Your task to perform on an android device: Play the last video I watched on Youtube Image 0: 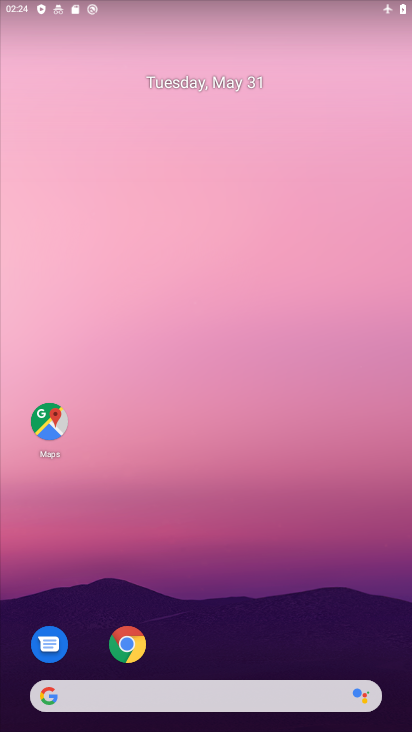
Step 0: drag from (273, 586) to (268, 158)
Your task to perform on an android device: Play the last video I watched on Youtube Image 1: 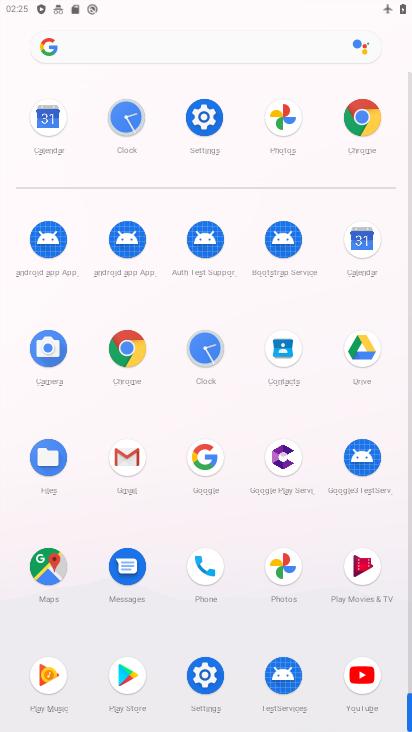
Step 1: click (368, 675)
Your task to perform on an android device: Play the last video I watched on Youtube Image 2: 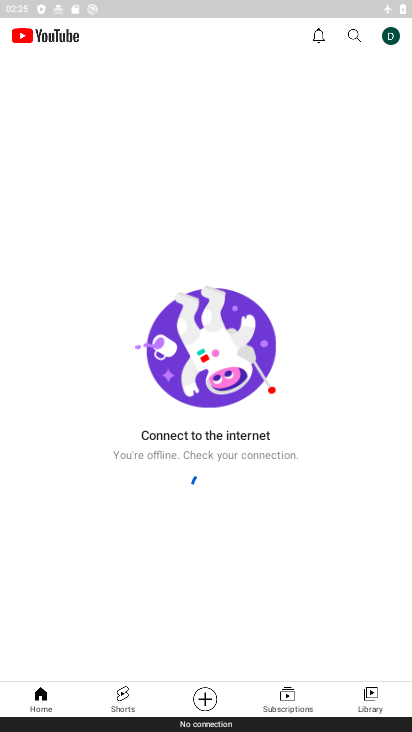
Step 2: click (356, 704)
Your task to perform on an android device: Play the last video I watched on Youtube Image 3: 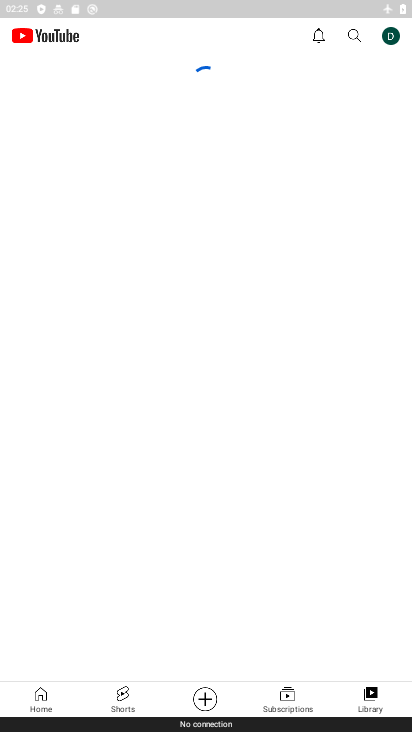
Step 3: task complete